Your task to perform on an android device: toggle pop-ups in chrome Image 0: 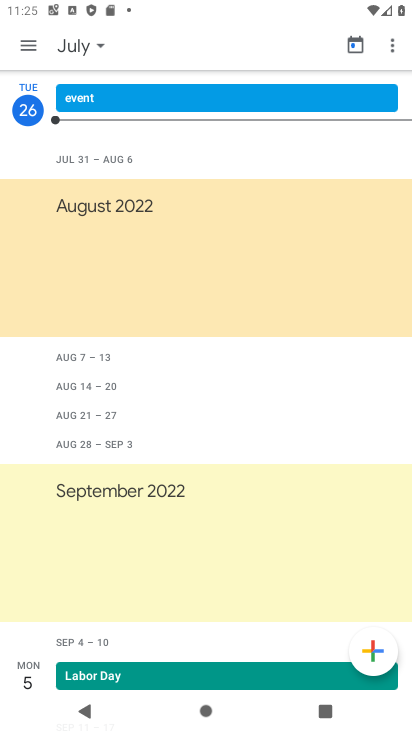
Step 0: press home button
Your task to perform on an android device: toggle pop-ups in chrome Image 1: 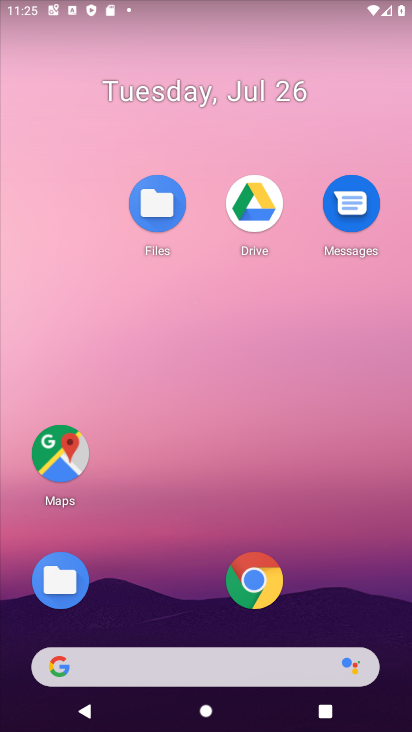
Step 1: click (258, 556)
Your task to perform on an android device: toggle pop-ups in chrome Image 2: 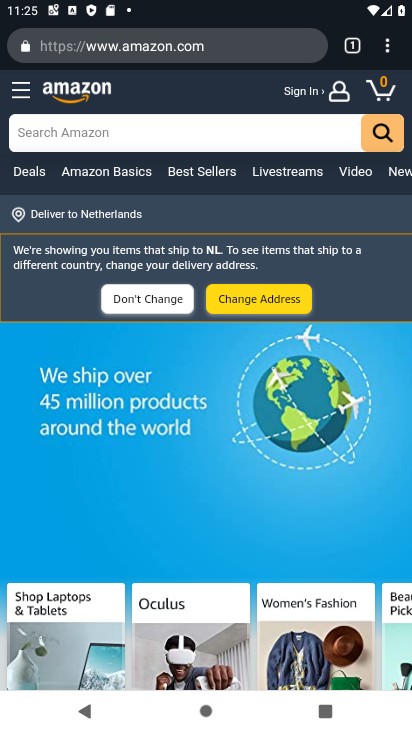
Step 2: click (399, 41)
Your task to perform on an android device: toggle pop-ups in chrome Image 3: 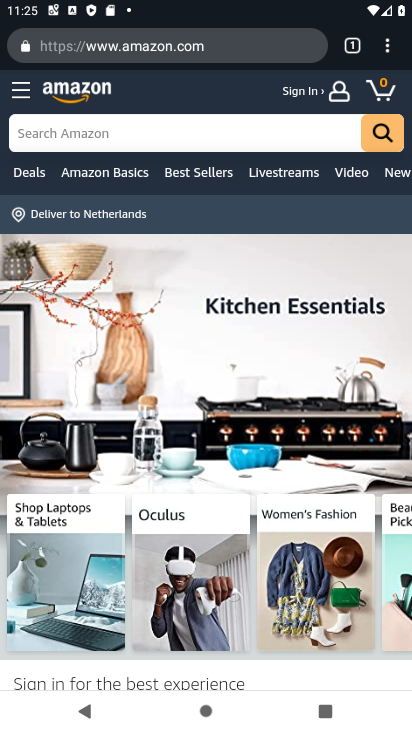
Step 3: click (395, 52)
Your task to perform on an android device: toggle pop-ups in chrome Image 4: 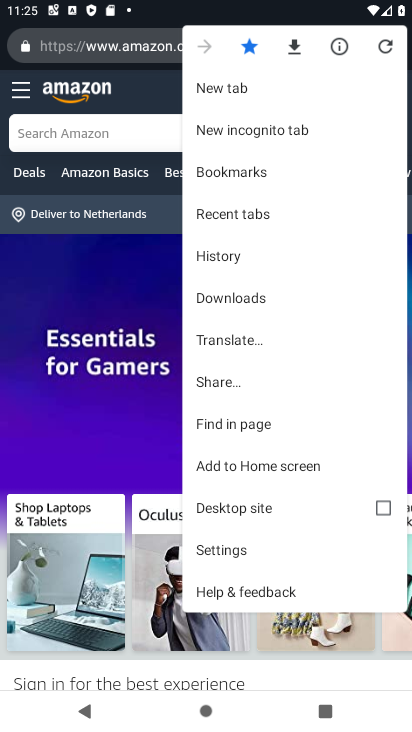
Step 4: click (219, 544)
Your task to perform on an android device: toggle pop-ups in chrome Image 5: 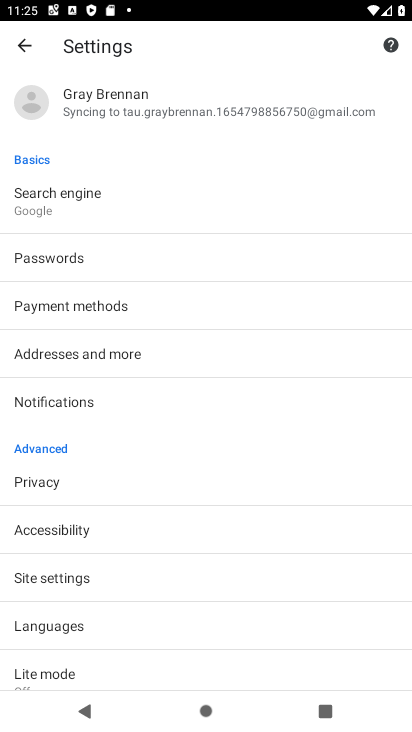
Step 5: click (83, 572)
Your task to perform on an android device: toggle pop-ups in chrome Image 6: 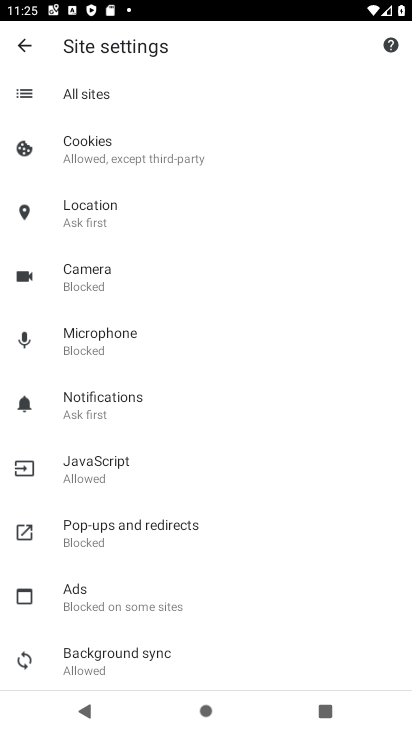
Step 6: click (122, 544)
Your task to perform on an android device: toggle pop-ups in chrome Image 7: 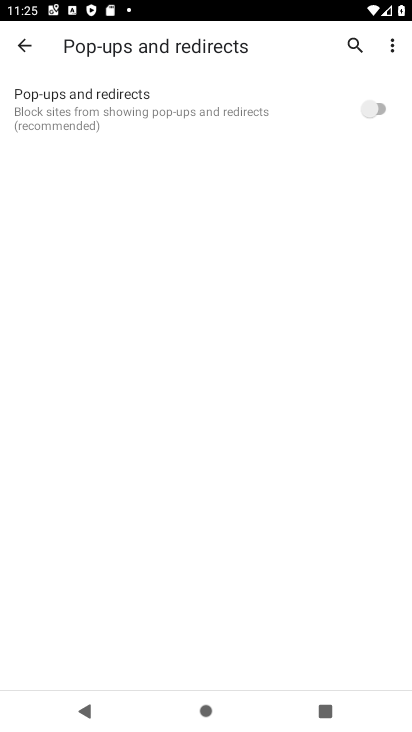
Step 7: click (377, 115)
Your task to perform on an android device: toggle pop-ups in chrome Image 8: 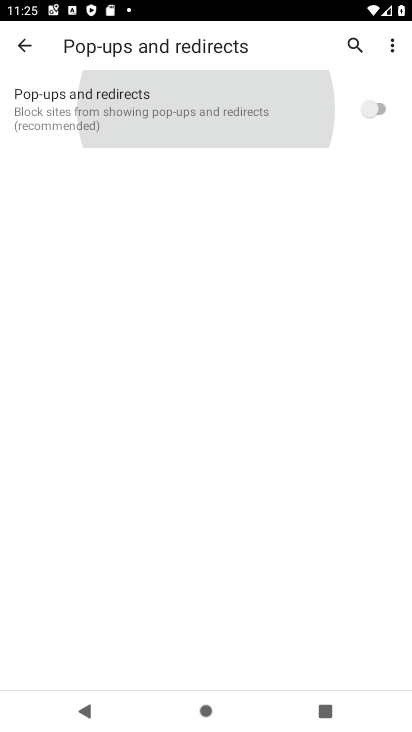
Step 8: click (377, 115)
Your task to perform on an android device: toggle pop-ups in chrome Image 9: 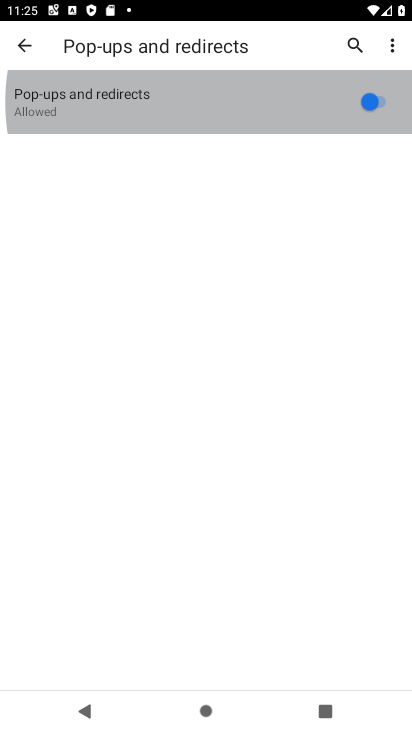
Step 9: click (377, 115)
Your task to perform on an android device: toggle pop-ups in chrome Image 10: 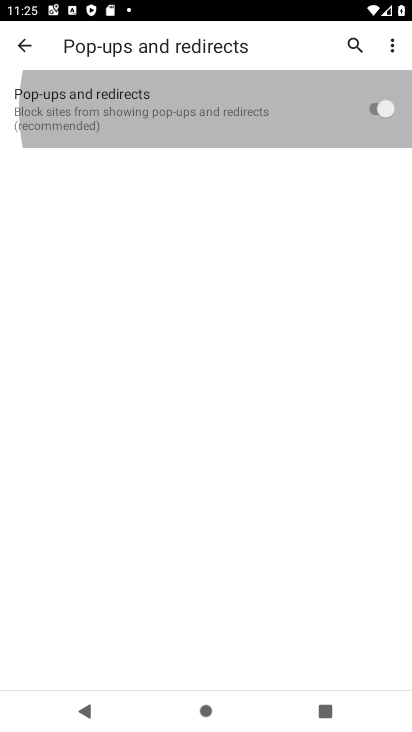
Step 10: click (377, 115)
Your task to perform on an android device: toggle pop-ups in chrome Image 11: 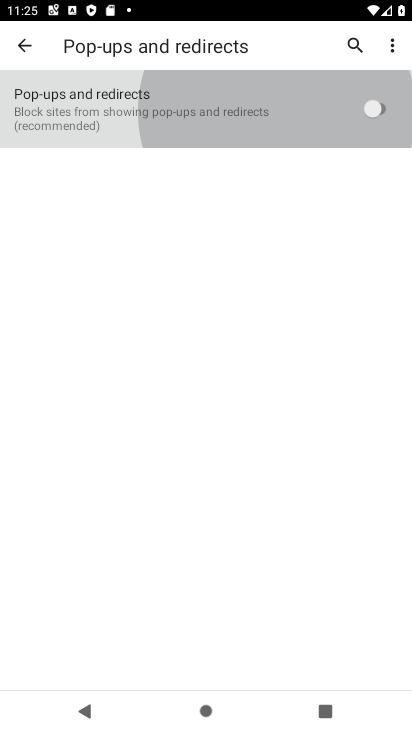
Step 11: click (377, 115)
Your task to perform on an android device: toggle pop-ups in chrome Image 12: 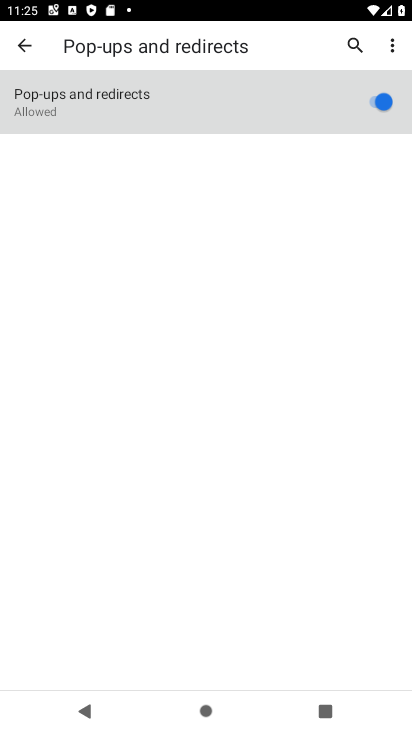
Step 12: click (377, 115)
Your task to perform on an android device: toggle pop-ups in chrome Image 13: 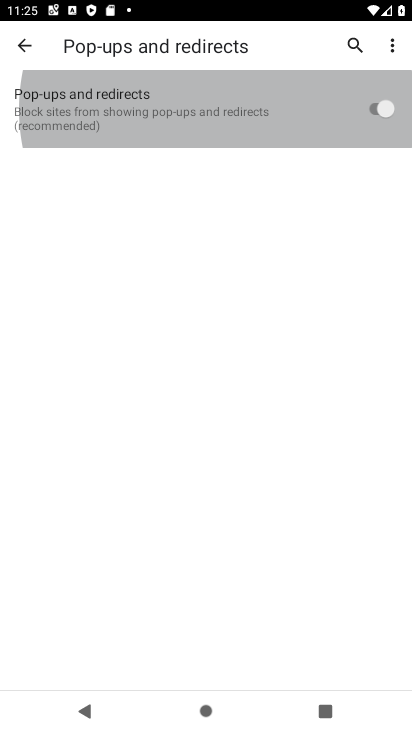
Step 13: click (377, 115)
Your task to perform on an android device: toggle pop-ups in chrome Image 14: 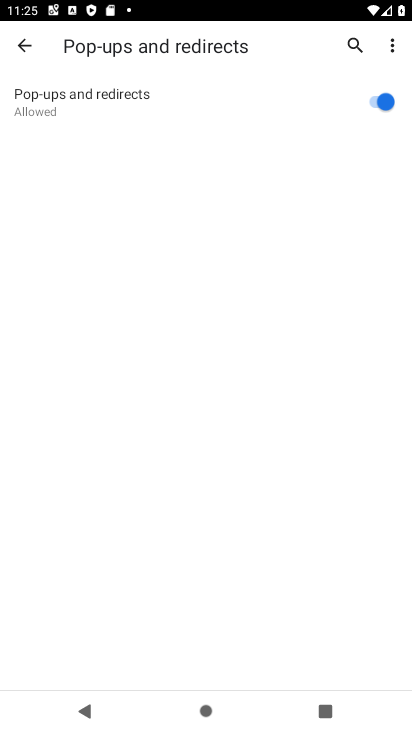
Step 14: click (377, 115)
Your task to perform on an android device: toggle pop-ups in chrome Image 15: 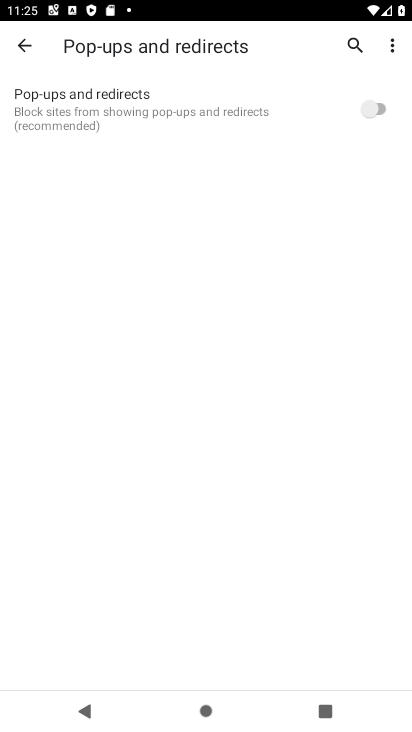
Step 15: task complete